Your task to perform on an android device: What's on my calendar tomorrow? Image 0: 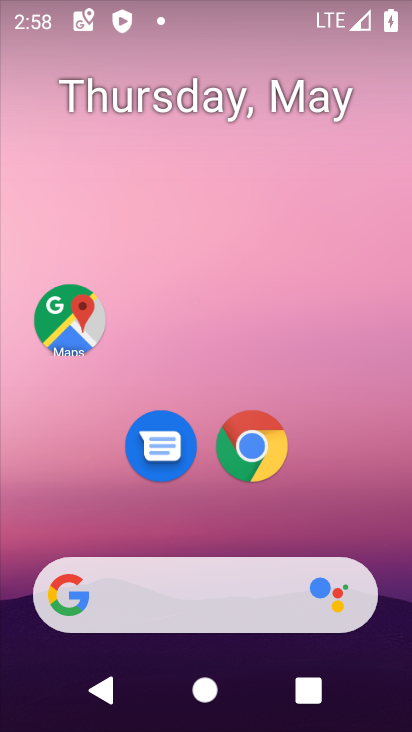
Step 0: drag from (148, 527) to (246, 1)
Your task to perform on an android device: What's on my calendar tomorrow? Image 1: 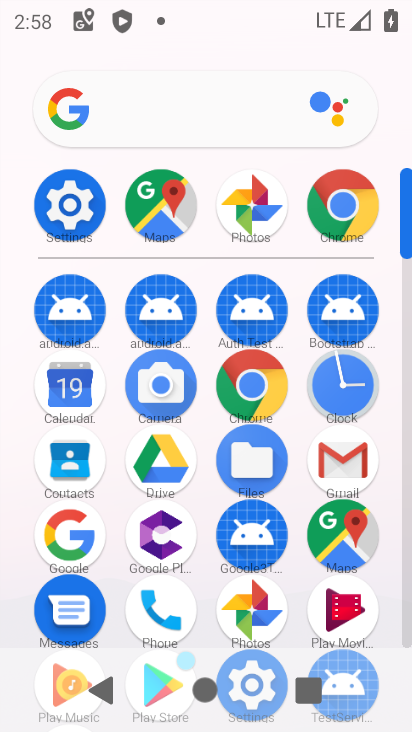
Step 1: click (61, 385)
Your task to perform on an android device: What's on my calendar tomorrow? Image 2: 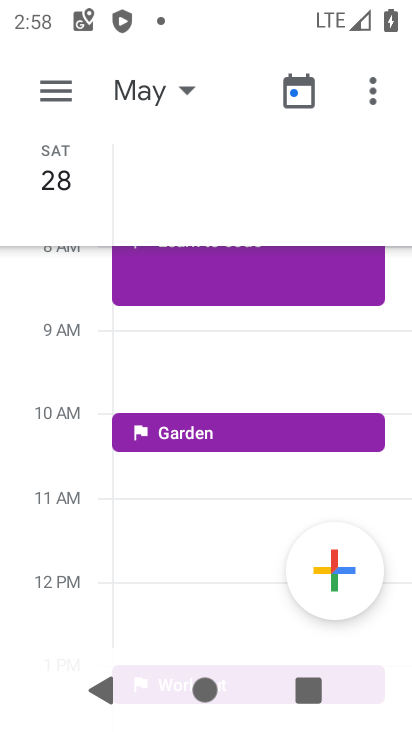
Step 2: click (55, 88)
Your task to perform on an android device: What's on my calendar tomorrow? Image 3: 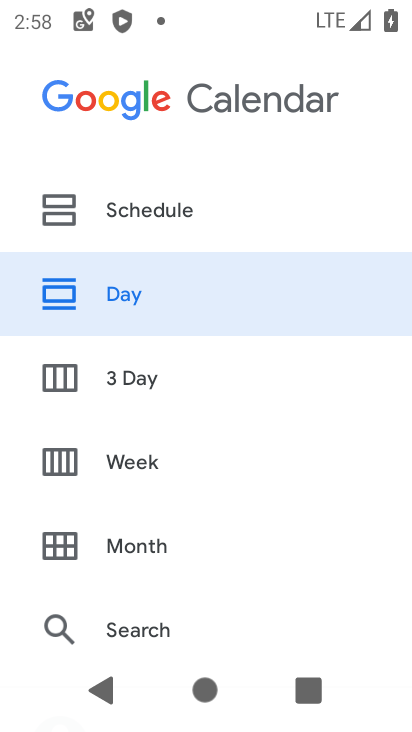
Step 3: click (115, 210)
Your task to perform on an android device: What's on my calendar tomorrow? Image 4: 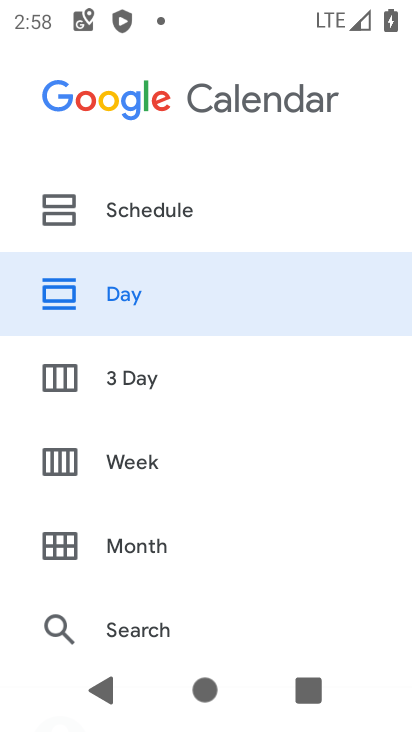
Step 4: click (118, 204)
Your task to perform on an android device: What's on my calendar tomorrow? Image 5: 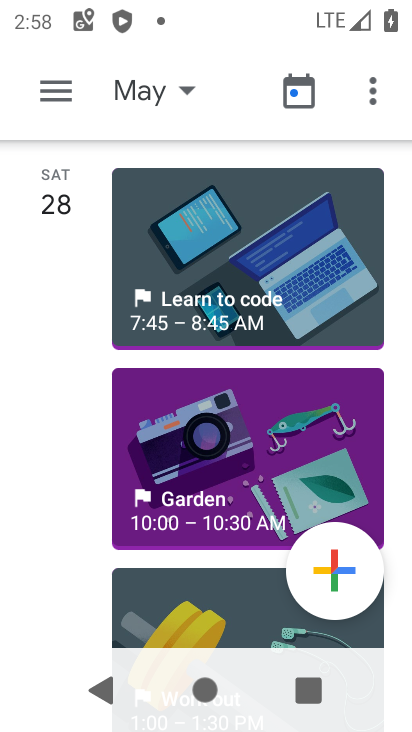
Step 5: click (151, 94)
Your task to perform on an android device: What's on my calendar tomorrow? Image 6: 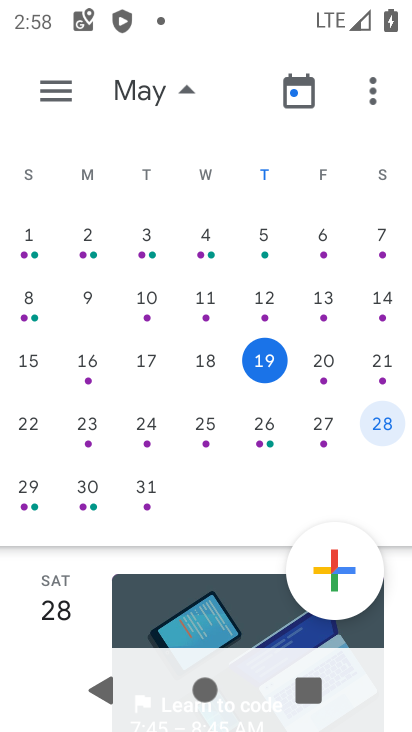
Step 6: click (318, 376)
Your task to perform on an android device: What's on my calendar tomorrow? Image 7: 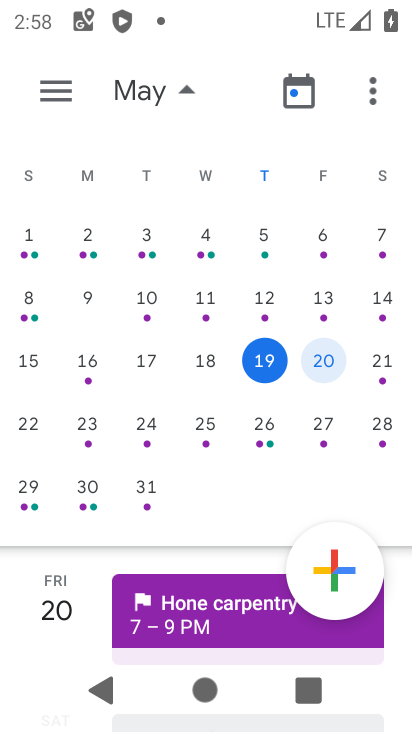
Step 7: task complete